Your task to perform on an android device: open app "Google Sheets" (install if not already installed) Image 0: 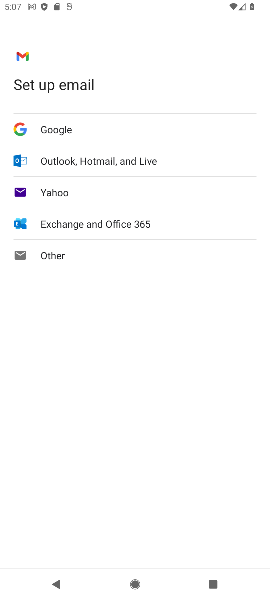
Step 0: press home button
Your task to perform on an android device: open app "Google Sheets" (install if not already installed) Image 1: 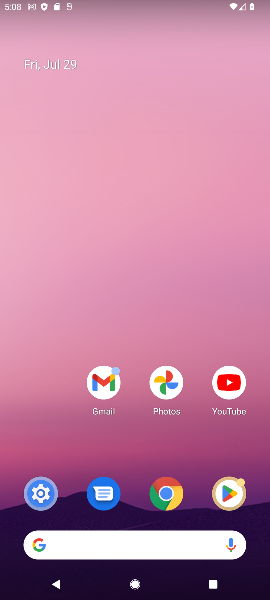
Step 1: drag from (148, 593) to (148, 99)
Your task to perform on an android device: open app "Google Sheets" (install if not already installed) Image 2: 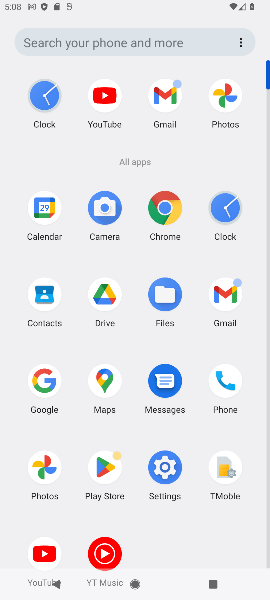
Step 2: click (101, 465)
Your task to perform on an android device: open app "Google Sheets" (install if not already installed) Image 3: 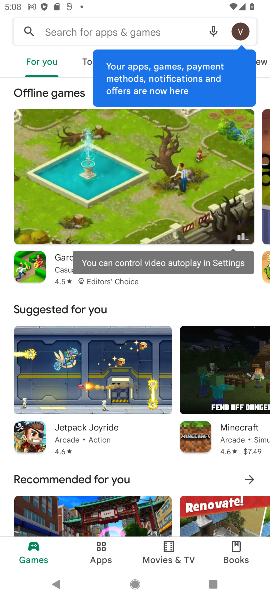
Step 3: click (144, 28)
Your task to perform on an android device: open app "Google Sheets" (install if not already installed) Image 4: 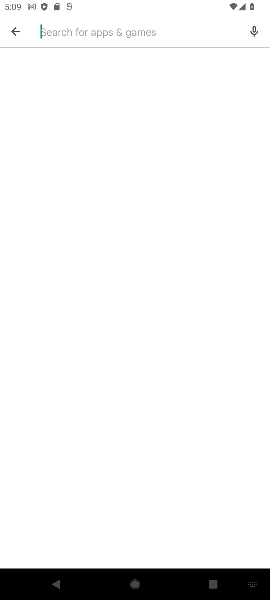
Step 4: type "Google sheets"
Your task to perform on an android device: open app "Google Sheets" (install if not already installed) Image 5: 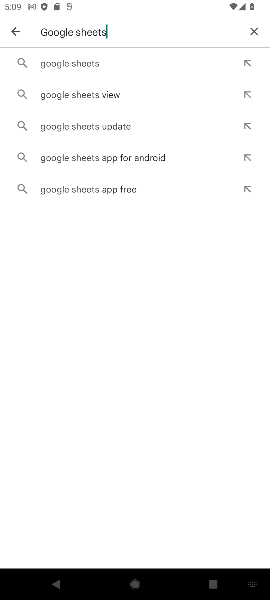
Step 5: click (80, 64)
Your task to perform on an android device: open app "Google Sheets" (install if not already installed) Image 6: 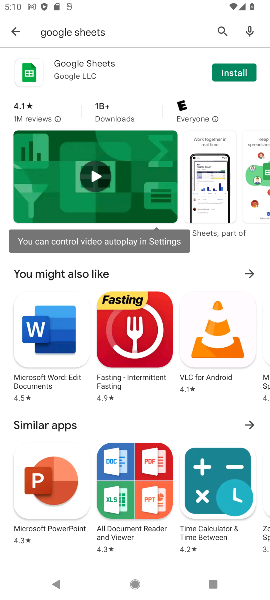
Step 6: click (242, 71)
Your task to perform on an android device: open app "Google Sheets" (install if not already installed) Image 7: 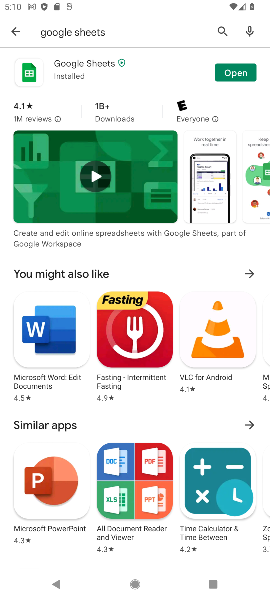
Step 7: task complete